Your task to perform on an android device: See recent photos Image 0: 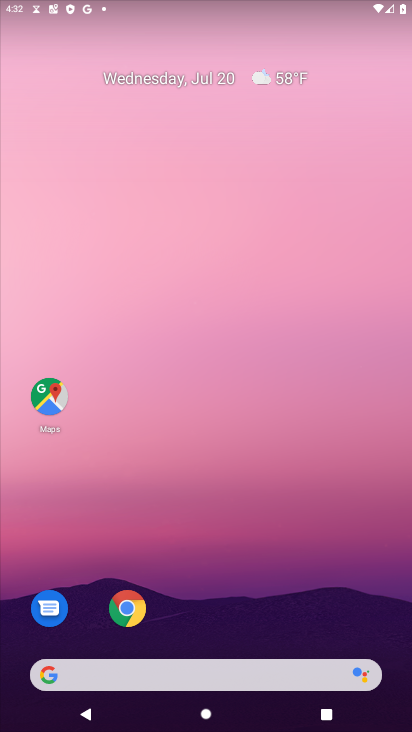
Step 0: drag from (243, 619) to (219, 29)
Your task to perform on an android device: See recent photos Image 1: 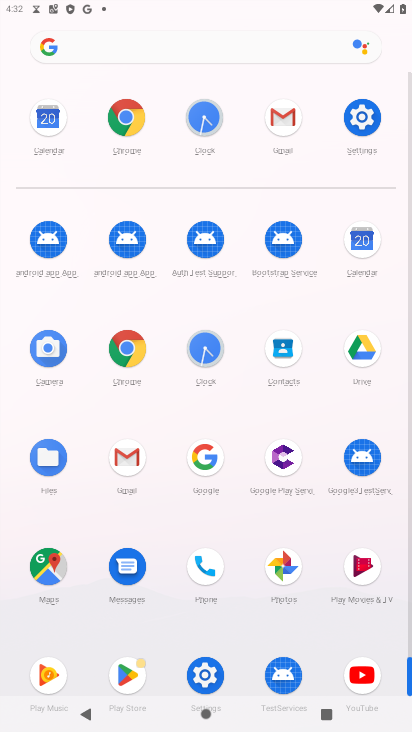
Step 1: click (278, 560)
Your task to perform on an android device: See recent photos Image 2: 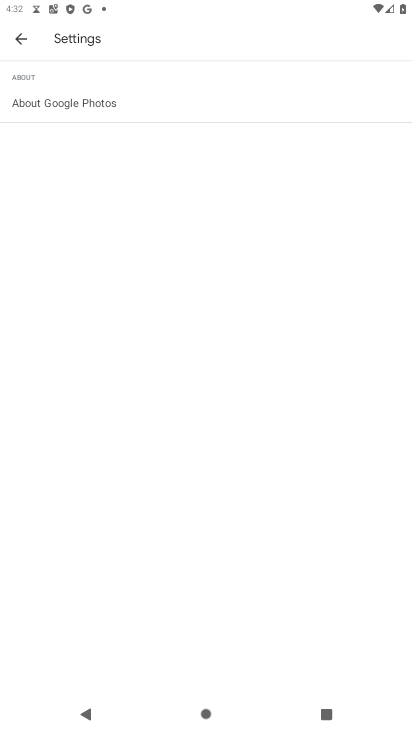
Step 2: click (23, 36)
Your task to perform on an android device: See recent photos Image 3: 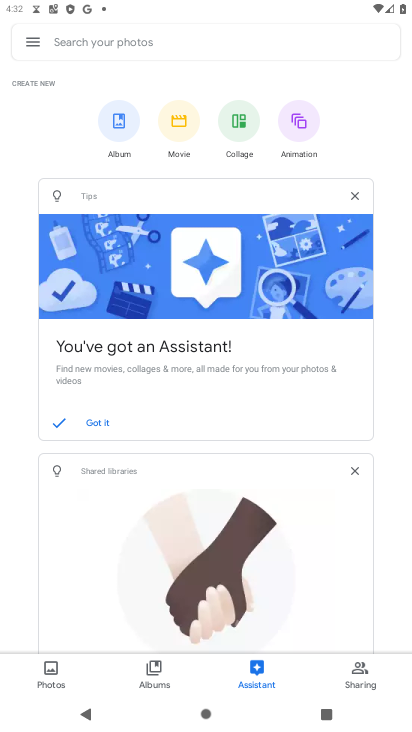
Step 3: click (58, 672)
Your task to perform on an android device: See recent photos Image 4: 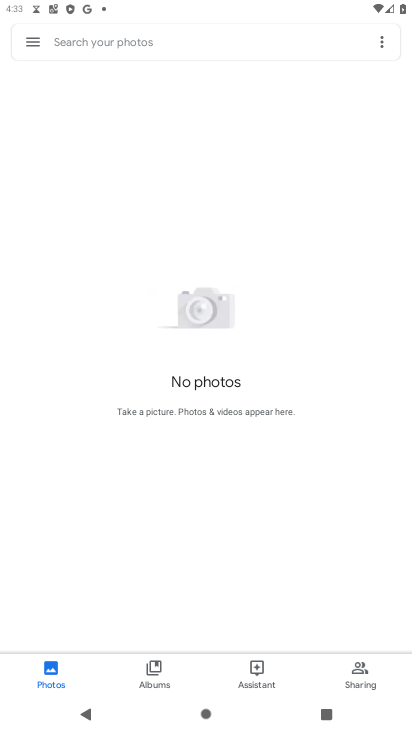
Step 4: task complete